Your task to perform on an android device: Open the calendar app, open the side menu, and click the "Day" option Image 0: 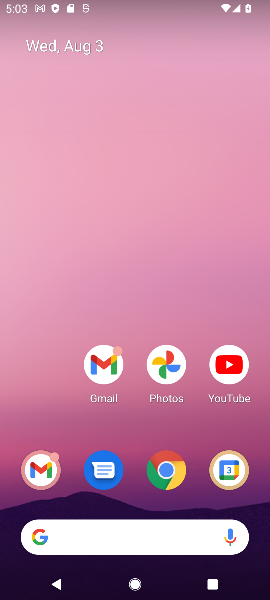
Step 0: drag from (136, 432) to (191, 71)
Your task to perform on an android device: Open the calendar app, open the side menu, and click the "Day" option Image 1: 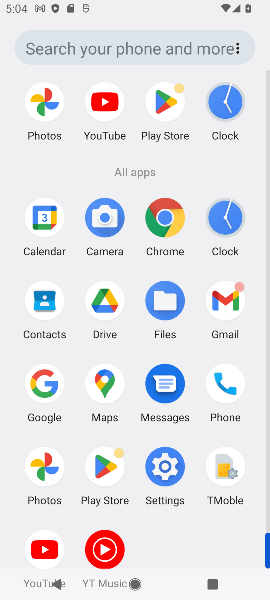
Step 1: click (49, 204)
Your task to perform on an android device: Open the calendar app, open the side menu, and click the "Day" option Image 2: 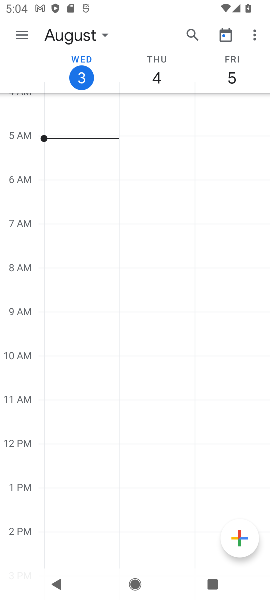
Step 2: click (22, 32)
Your task to perform on an android device: Open the calendar app, open the side menu, and click the "Day" option Image 3: 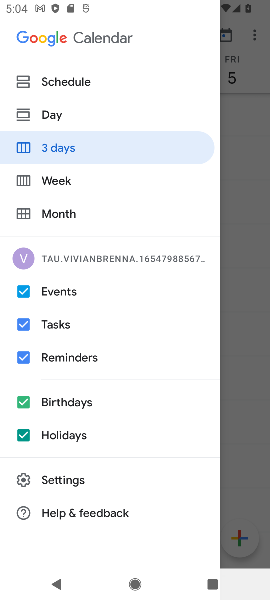
Step 3: click (60, 119)
Your task to perform on an android device: Open the calendar app, open the side menu, and click the "Day" option Image 4: 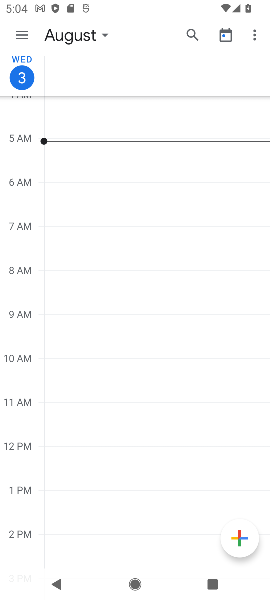
Step 4: task complete